Your task to perform on an android device: Show me productivity apps on the Play Store Image 0: 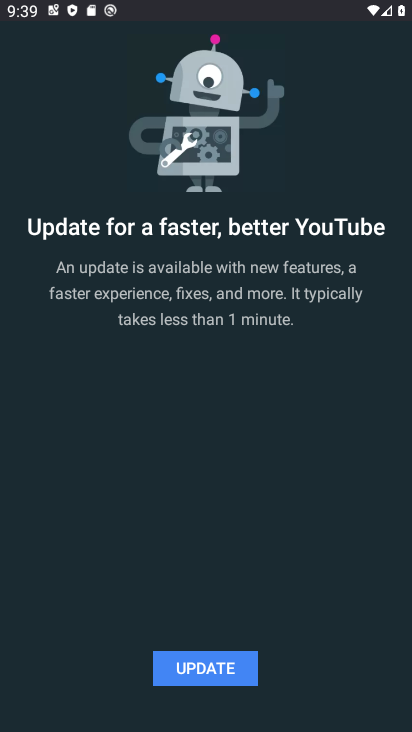
Step 0: press home button
Your task to perform on an android device: Show me productivity apps on the Play Store Image 1: 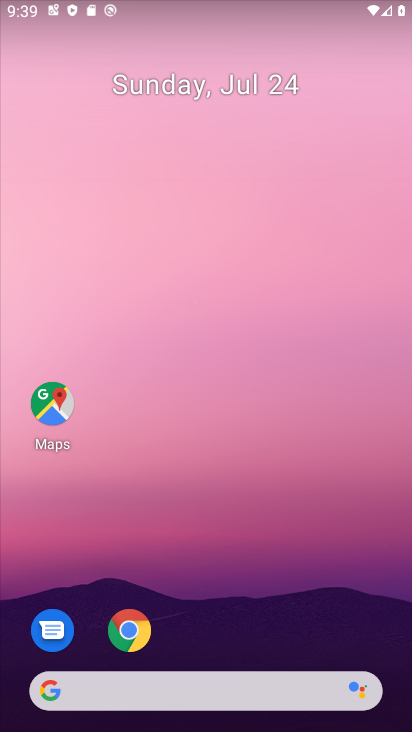
Step 1: drag from (209, 649) to (187, 99)
Your task to perform on an android device: Show me productivity apps on the Play Store Image 2: 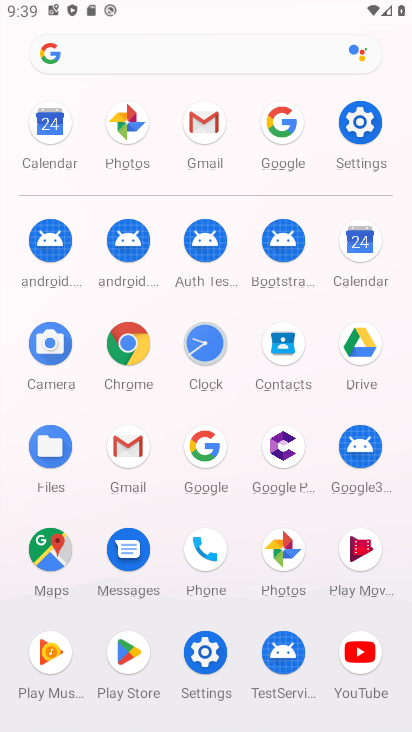
Step 2: click (115, 653)
Your task to perform on an android device: Show me productivity apps on the Play Store Image 3: 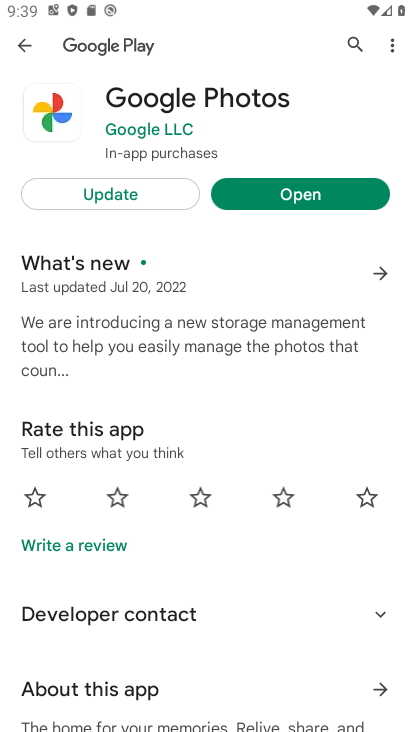
Step 3: click (26, 46)
Your task to perform on an android device: Show me productivity apps on the Play Store Image 4: 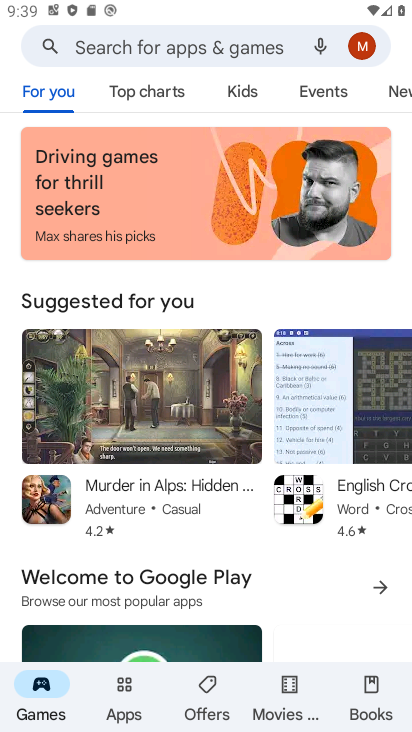
Step 4: click (124, 710)
Your task to perform on an android device: Show me productivity apps on the Play Store Image 5: 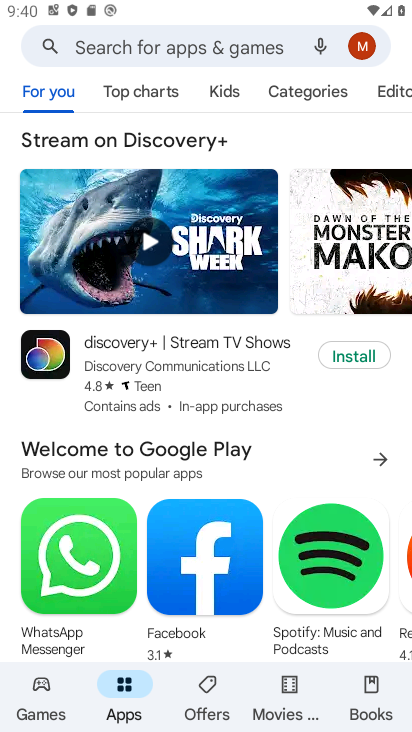
Step 5: click (266, 96)
Your task to perform on an android device: Show me productivity apps on the Play Store Image 6: 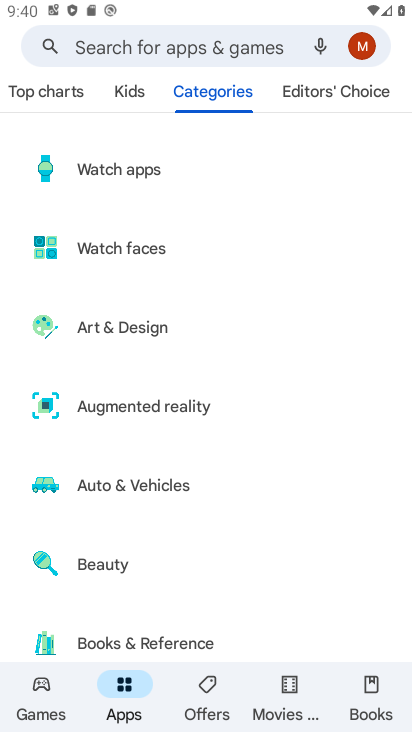
Step 6: drag from (175, 548) to (176, 203)
Your task to perform on an android device: Show me productivity apps on the Play Store Image 7: 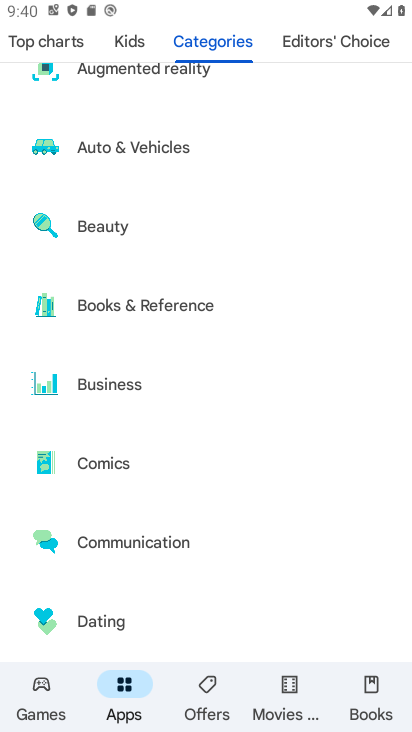
Step 7: drag from (205, 572) to (205, 177)
Your task to perform on an android device: Show me productivity apps on the Play Store Image 8: 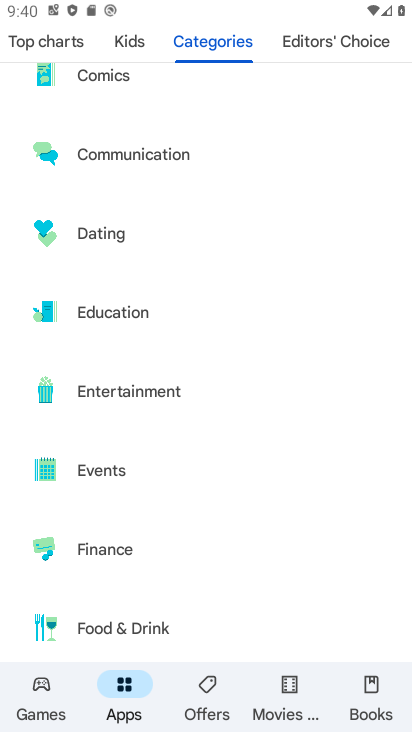
Step 8: drag from (196, 581) to (172, 162)
Your task to perform on an android device: Show me productivity apps on the Play Store Image 9: 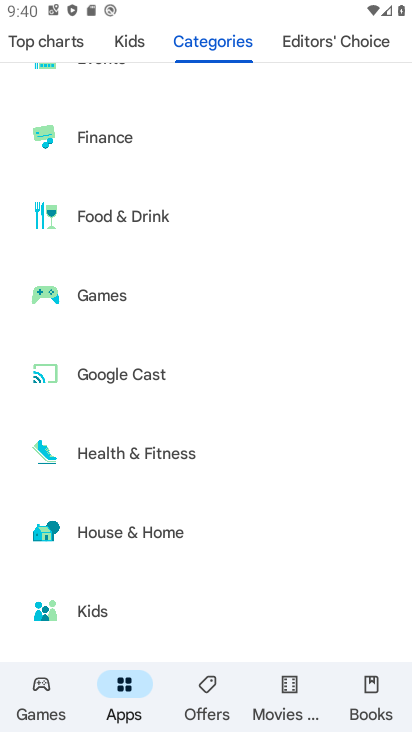
Step 9: drag from (137, 571) to (155, 166)
Your task to perform on an android device: Show me productivity apps on the Play Store Image 10: 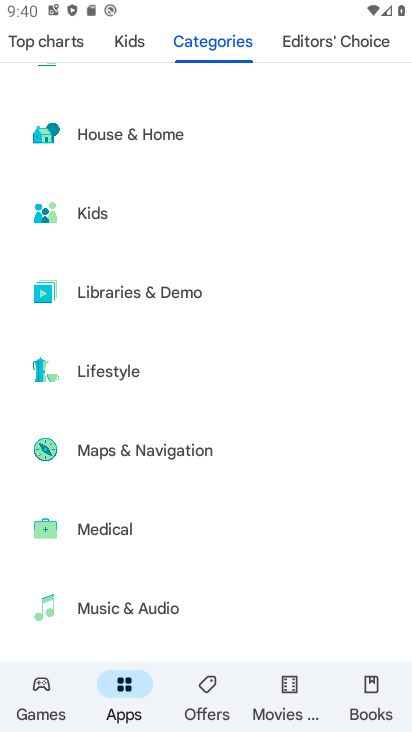
Step 10: drag from (151, 589) to (158, 160)
Your task to perform on an android device: Show me productivity apps on the Play Store Image 11: 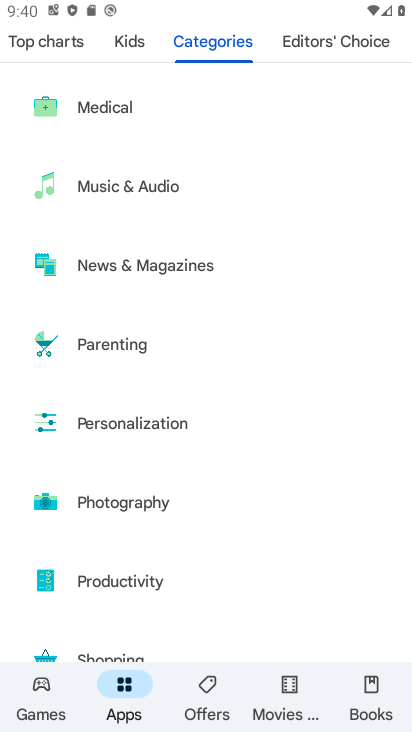
Step 11: click (151, 599)
Your task to perform on an android device: Show me productivity apps on the Play Store Image 12: 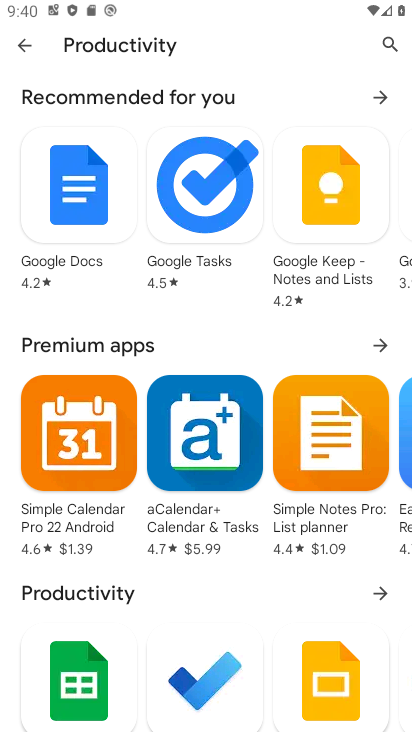
Step 12: task complete